Your task to perform on an android device: Search for the new ikea dresser Image 0: 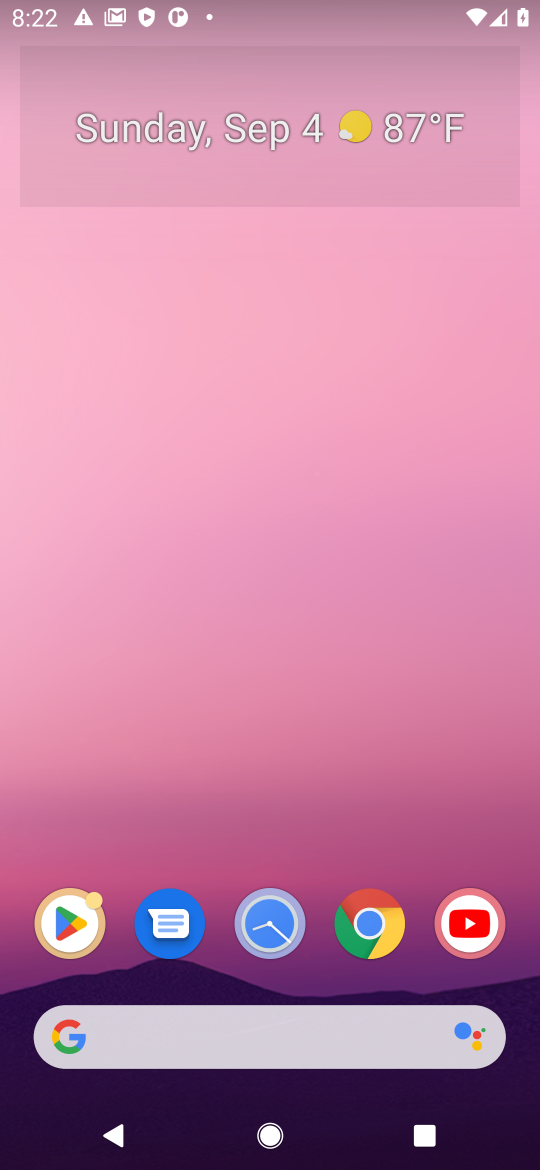
Step 0: press home button
Your task to perform on an android device: Search for the new ikea dresser Image 1: 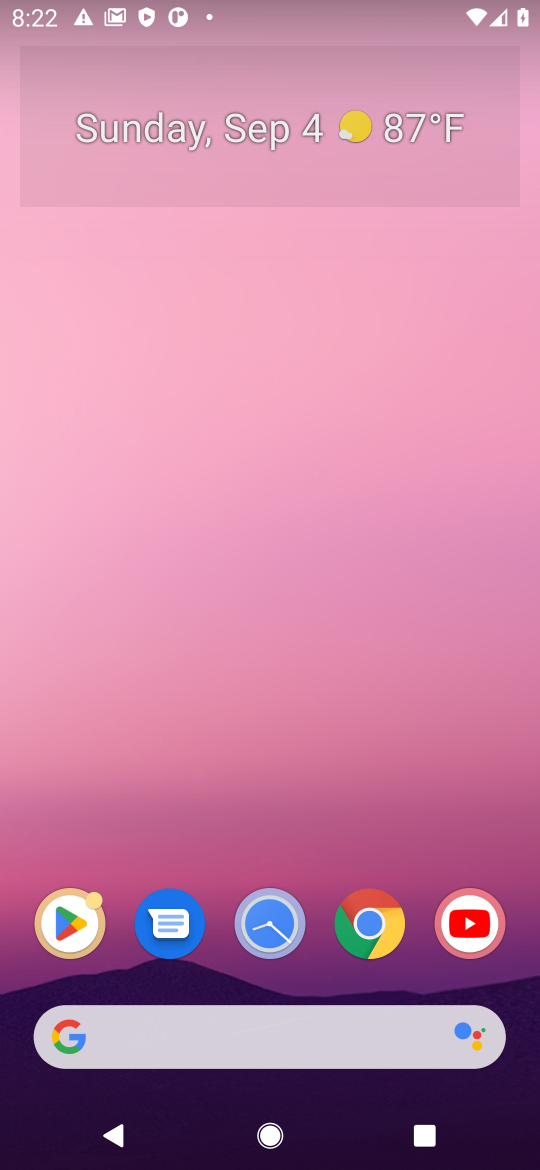
Step 1: click (393, 1041)
Your task to perform on an android device: Search for the new ikea dresser Image 2: 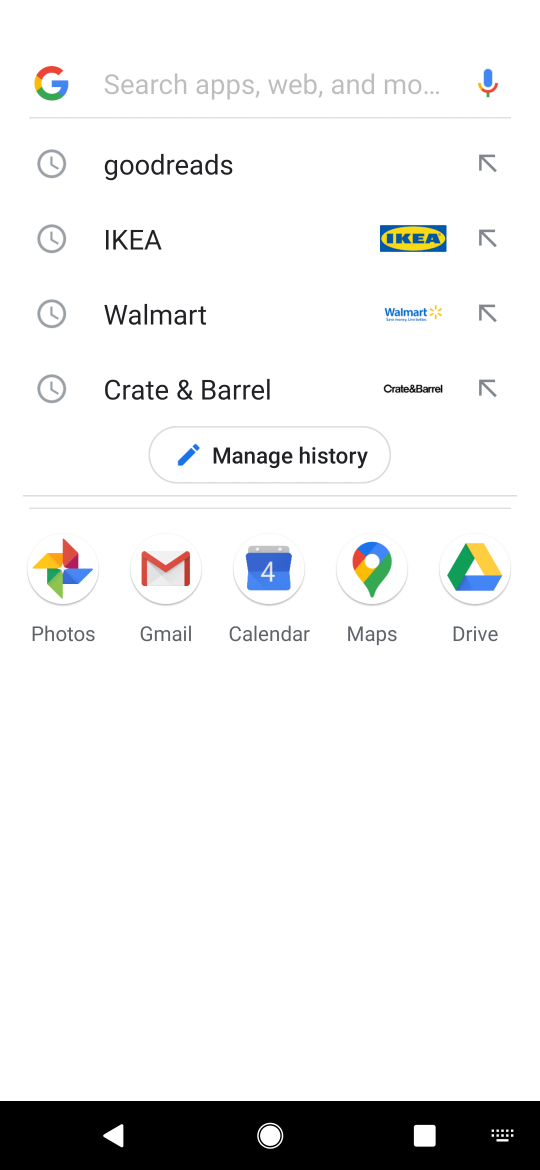
Step 2: click (144, 241)
Your task to perform on an android device: Search for the new ikea dresser Image 3: 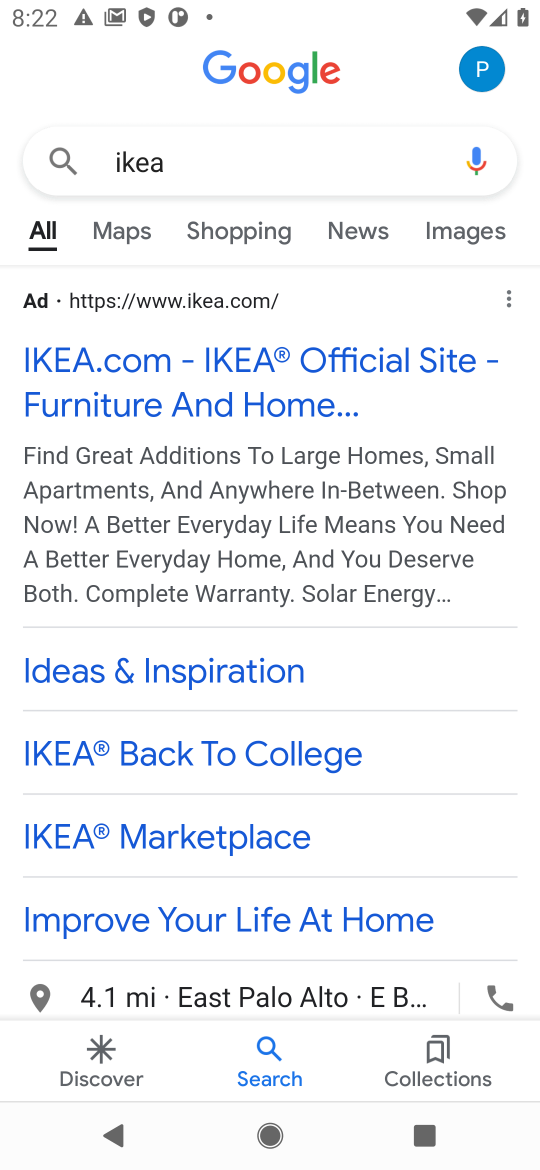
Step 3: click (309, 381)
Your task to perform on an android device: Search for the new ikea dresser Image 4: 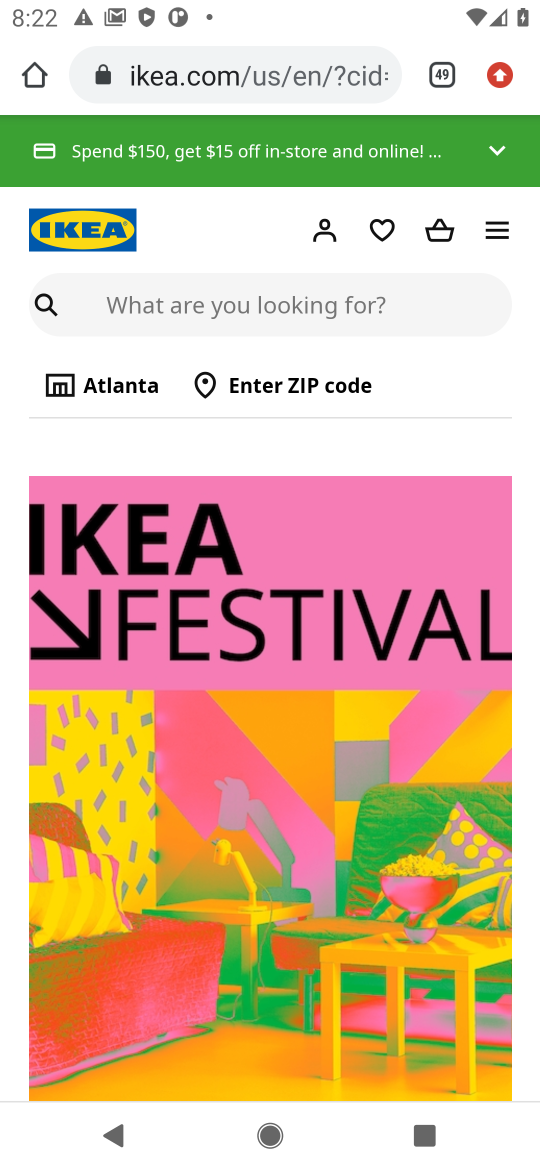
Step 4: click (289, 287)
Your task to perform on an android device: Search for the new ikea dresser Image 5: 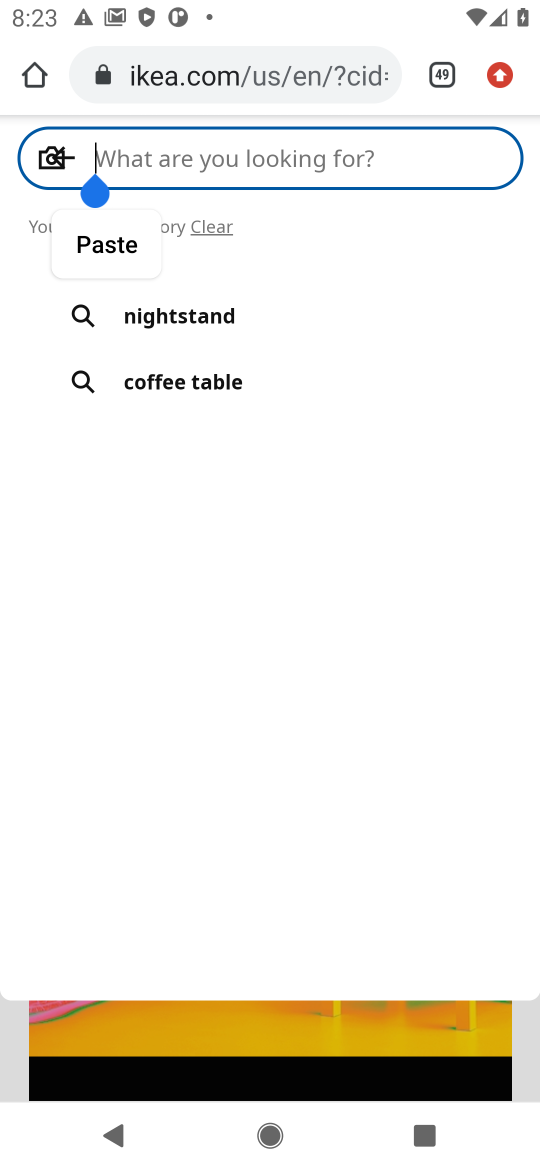
Step 5: type "dresser"
Your task to perform on an android device: Search for the new ikea dresser Image 6: 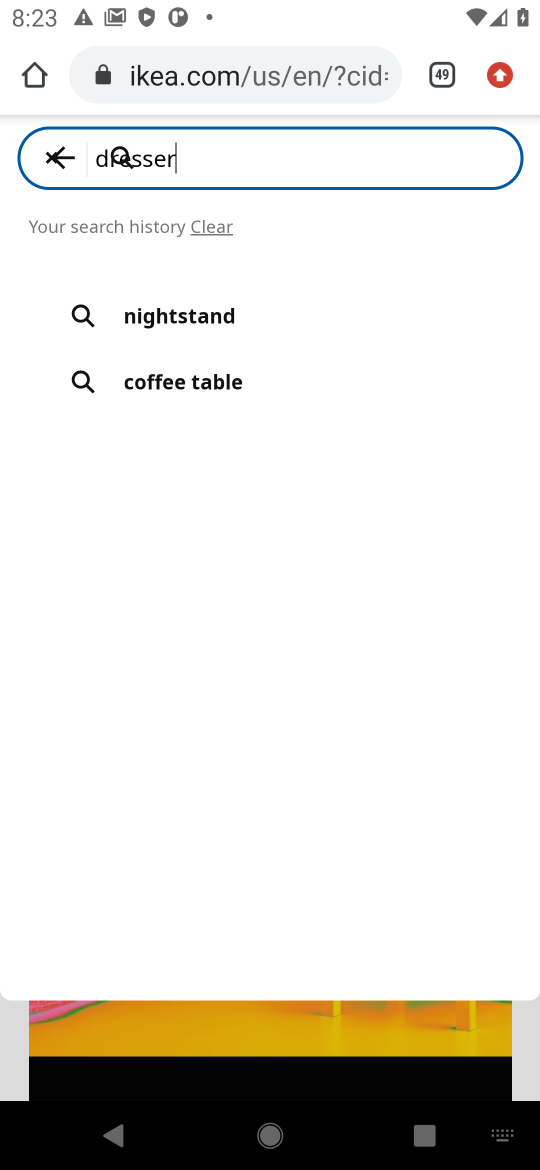
Step 6: press enter
Your task to perform on an android device: Search for the new ikea dresser Image 7: 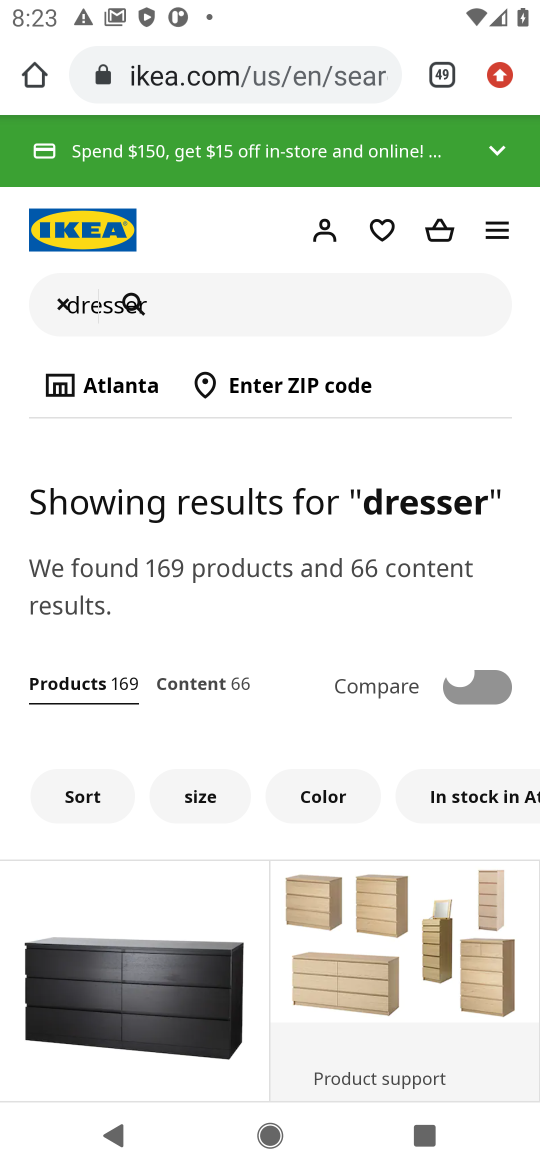
Step 7: task complete